Your task to perform on an android device: turn on the 24-hour format for clock Image 0: 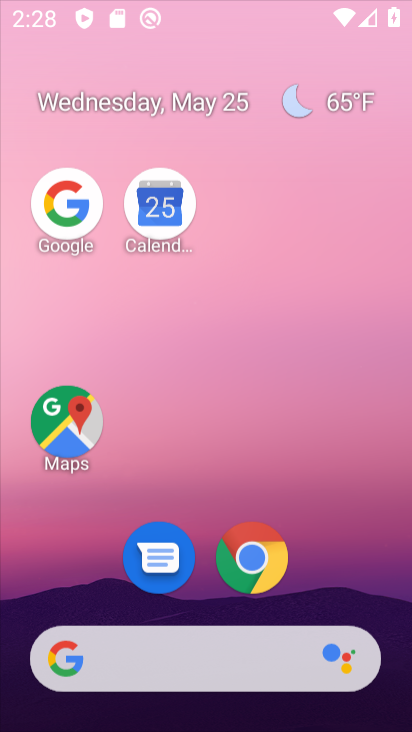
Step 0: click (344, 133)
Your task to perform on an android device: turn on the 24-hour format for clock Image 1: 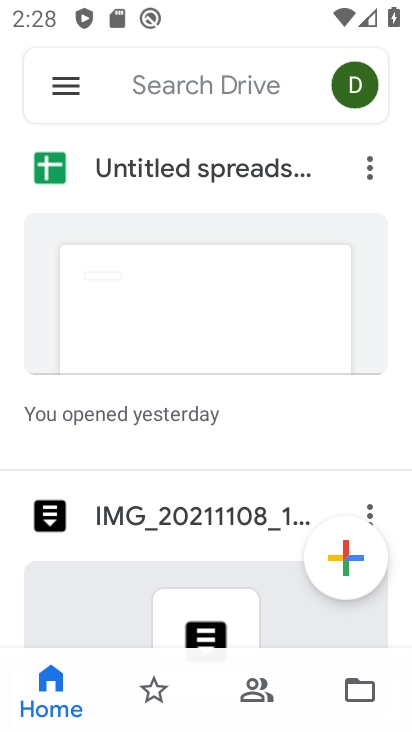
Step 1: press home button
Your task to perform on an android device: turn on the 24-hour format for clock Image 2: 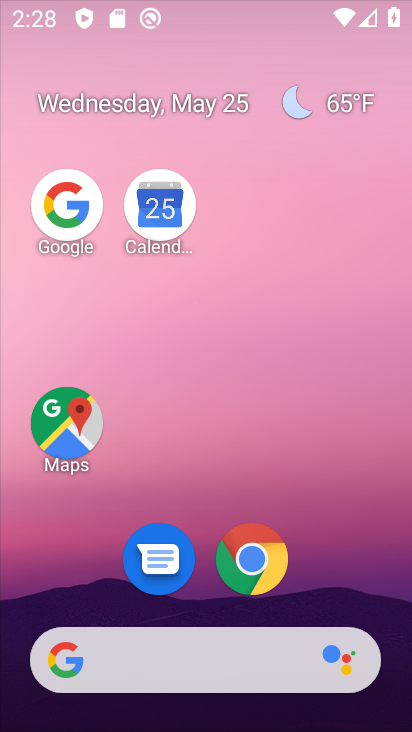
Step 2: drag from (354, 604) to (351, 101)
Your task to perform on an android device: turn on the 24-hour format for clock Image 3: 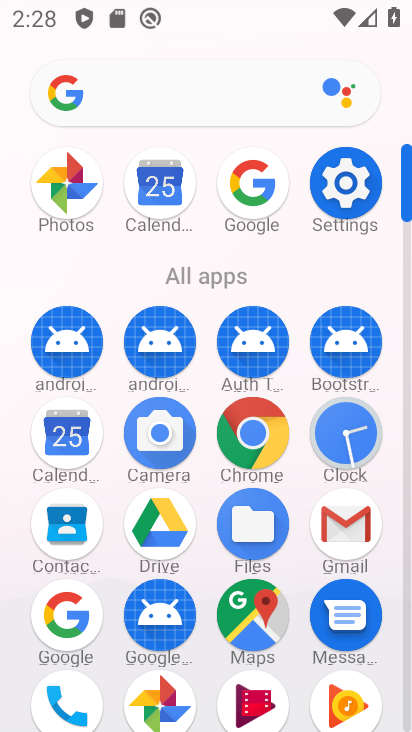
Step 3: drag from (356, 443) to (100, 292)
Your task to perform on an android device: turn on the 24-hour format for clock Image 4: 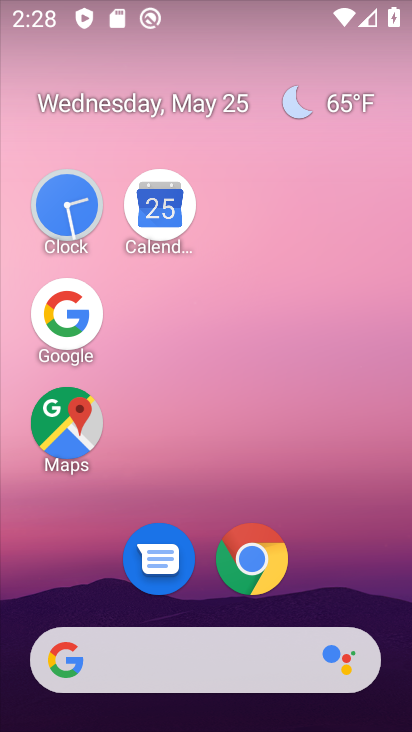
Step 4: click (75, 222)
Your task to perform on an android device: turn on the 24-hour format for clock Image 5: 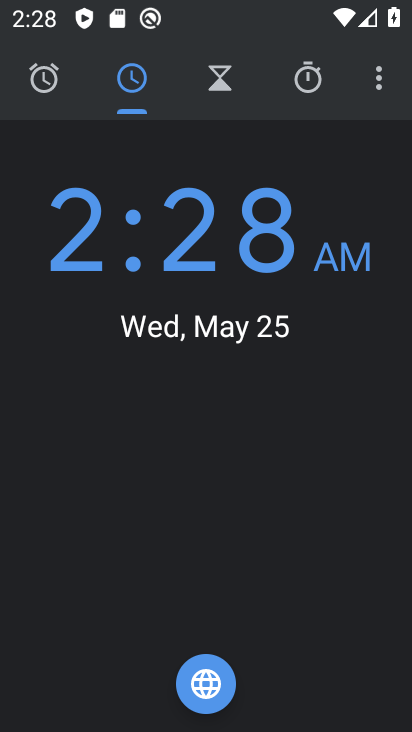
Step 5: click (380, 72)
Your task to perform on an android device: turn on the 24-hour format for clock Image 6: 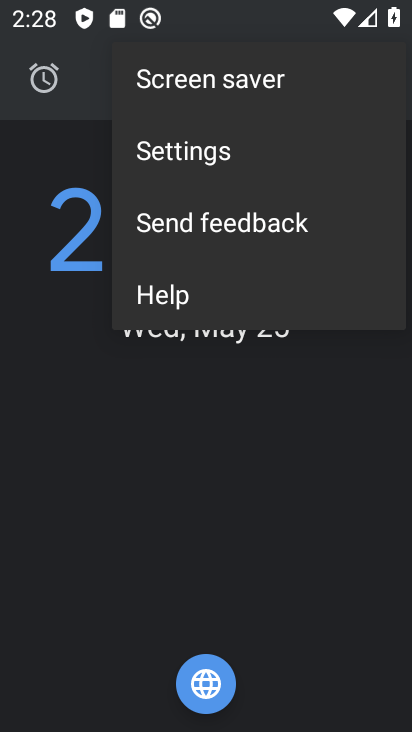
Step 6: click (279, 138)
Your task to perform on an android device: turn on the 24-hour format for clock Image 7: 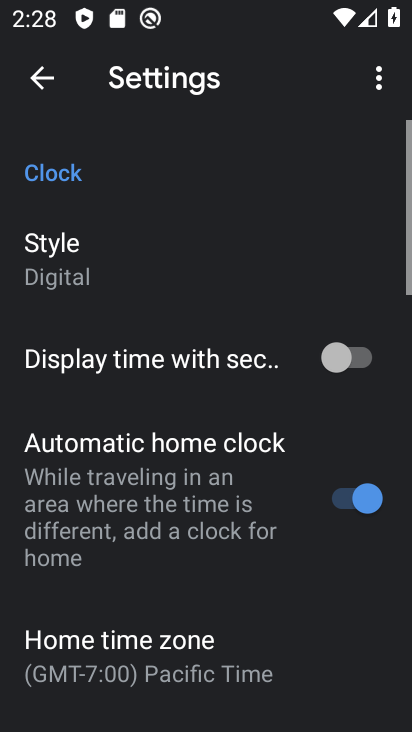
Step 7: drag from (162, 569) to (217, 212)
Your task to perform on an android device: turn on the 24-hour format for clock Image 8: 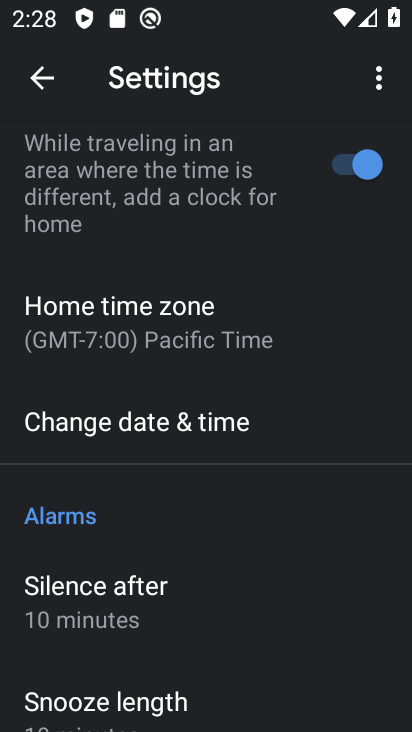
Step 8: click (190, 416)
Your task to perform on an android device: turn on the 24-hour format for clock Image 9: 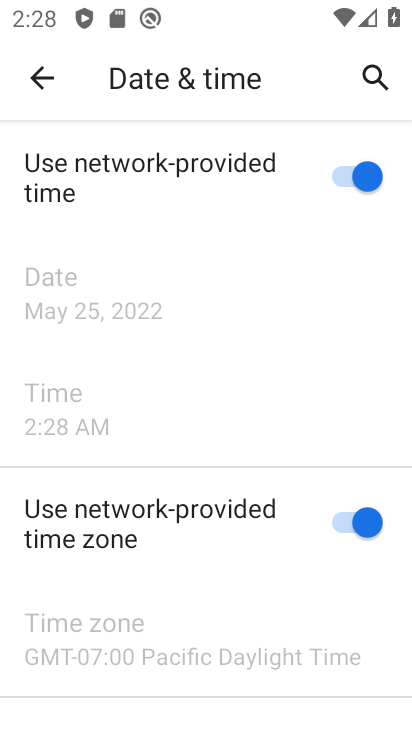
Step 9: drag from (240, 571) to (246, 126)
Your task to perform on an android device: turn on the 24-hour format for clock Image 10: 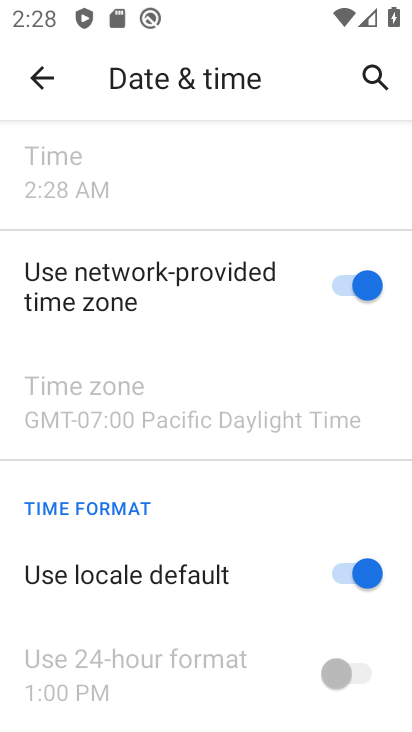
Step 10: click (368, 592)
Your task to perform on an android device: turn on the 24-hour format for clock Image 11: 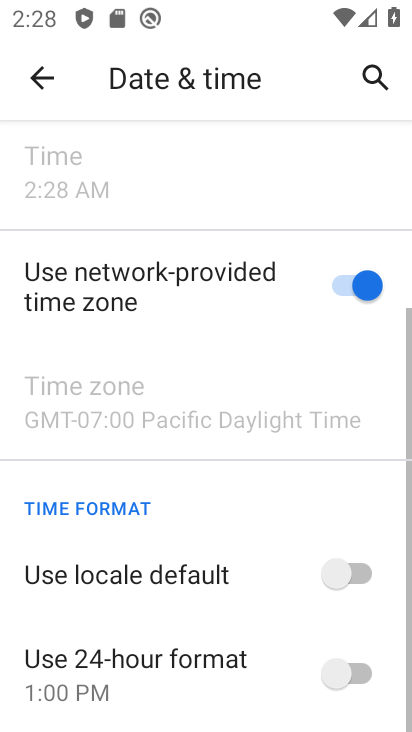
Step 11: click (342, 674)
Your task to perform on an android device: turn on the 24-hour format for clock Image 12: 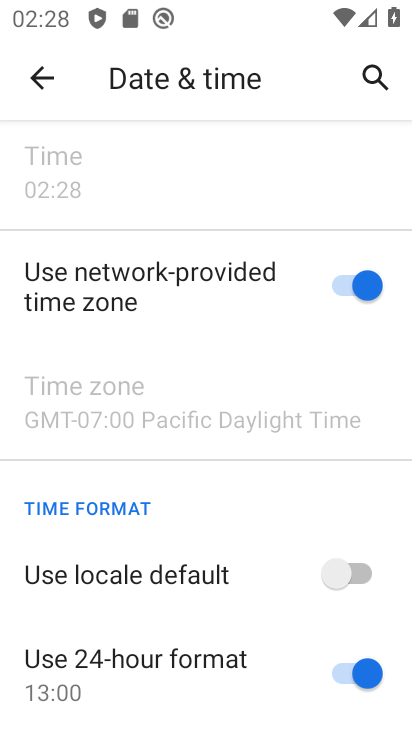
Step 12: task complete